Your task to perform on an android device: allow notifications from all sites in the chrome app Image 0: 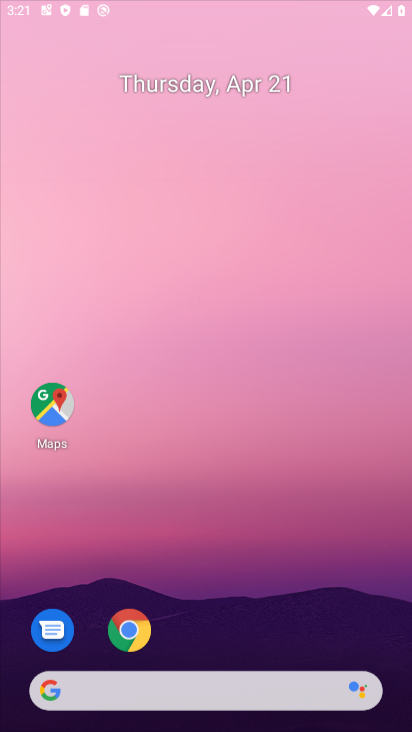
Step 0: click (230, 130)
Your task to perform on an android device: allow notifications from all sites in the chrome app Image 1: 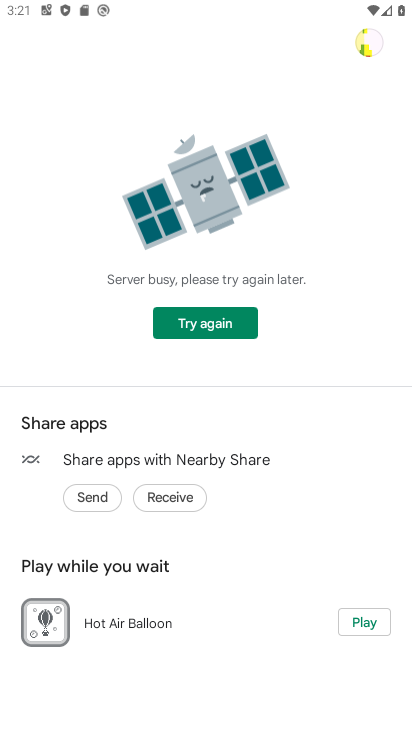
Step 1: press back button
Your task to perform on an android device: allow notifications from all sites in the chrome app Image 2: 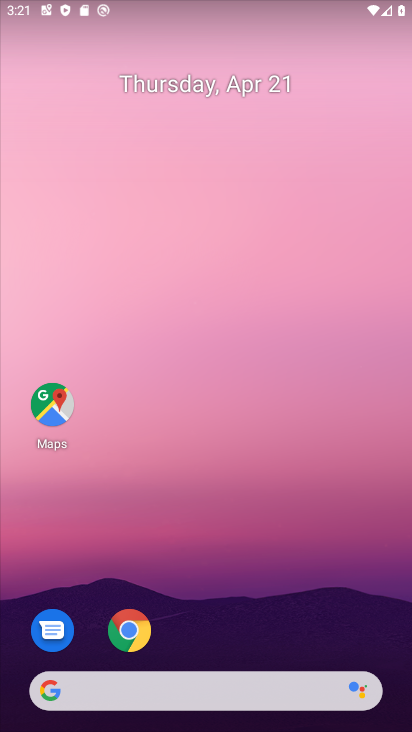
Step 2: click (134, 619)
Your task to perform on an android device: allow notifications from all sites in the chrome app Image 3: 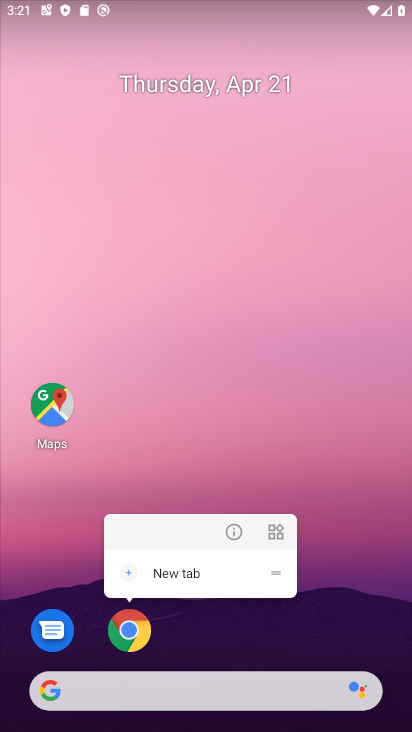
Step 3: click (134, 630)
Your task to perform on an android device: allow notifications from all sites in the chrome app Image 4: 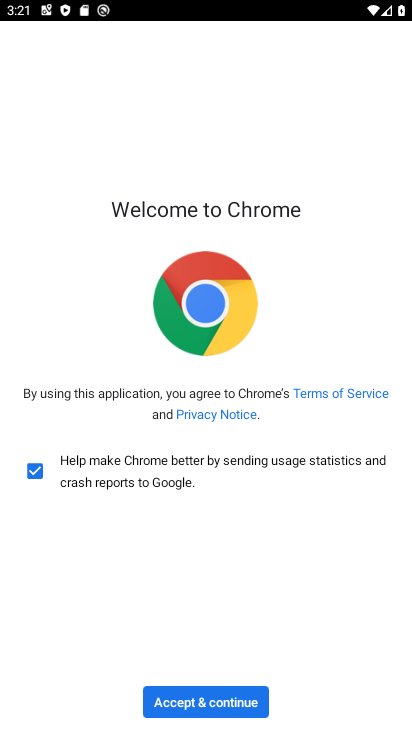
Step 4: click (179, 703)
Your task to perform on an android device: allow notifications from all sites in the chrome app Image 5: 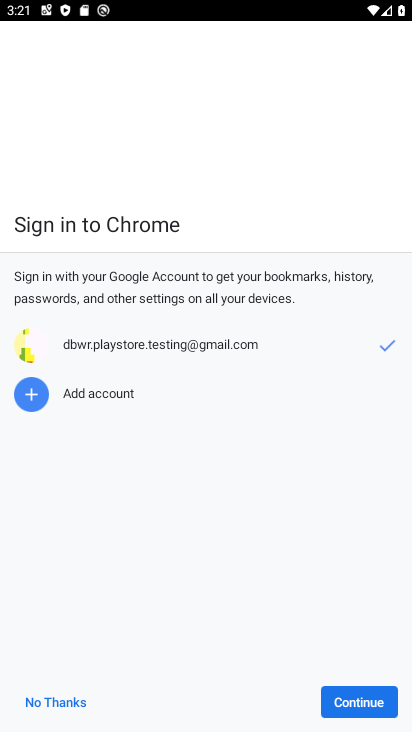
Step 5: click (350, 699)
Your task to perform on an android device: allow notifications from all sites in the chrome app Image 6: 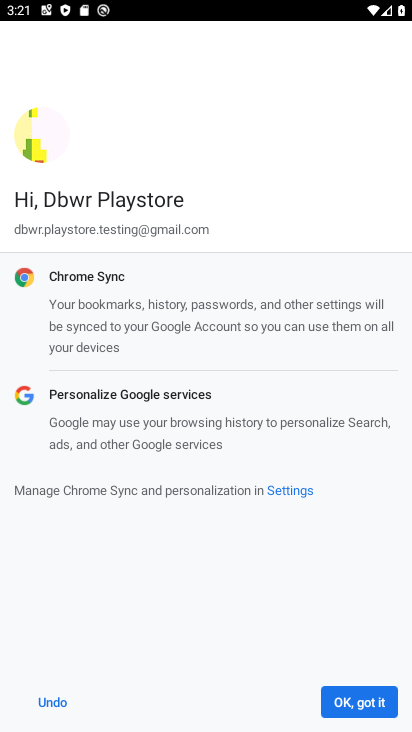
Step 6: click (346, 702)
Your task to perform on an android device: allow notifications from all sites in the chrome app Image 7: 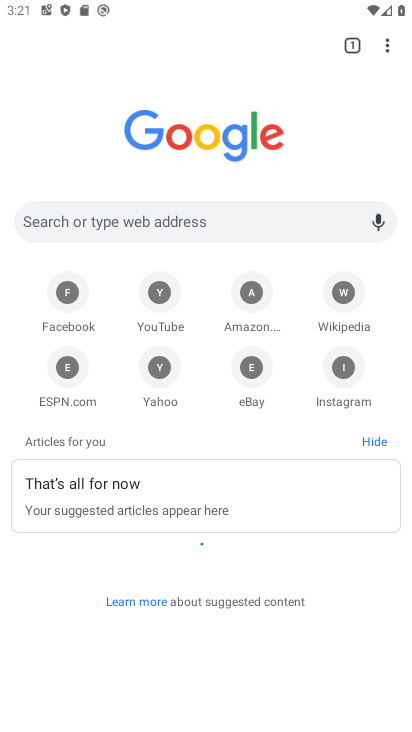
Step 7: drag from (385, 45) to (242, 384)
Your task to perform on an android device: allow notifications from all sites in the chrome app Image 8: 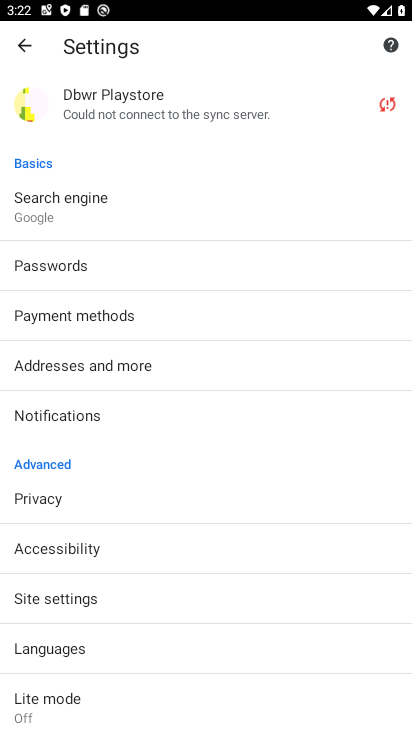
Step 8: click (60, 594)
Your task to perform on an android device: allow notifications from all sites in the chrome app Image 9: 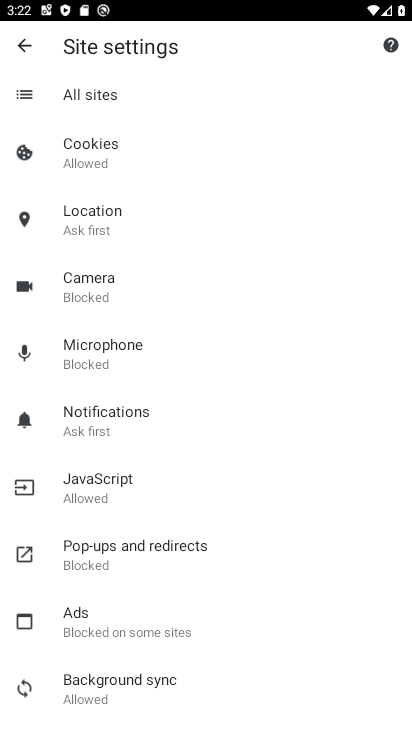
Step 9: click (113, 417)
Your task to perform on an android device: allow notifications from all sites in the chrome app Image 10: 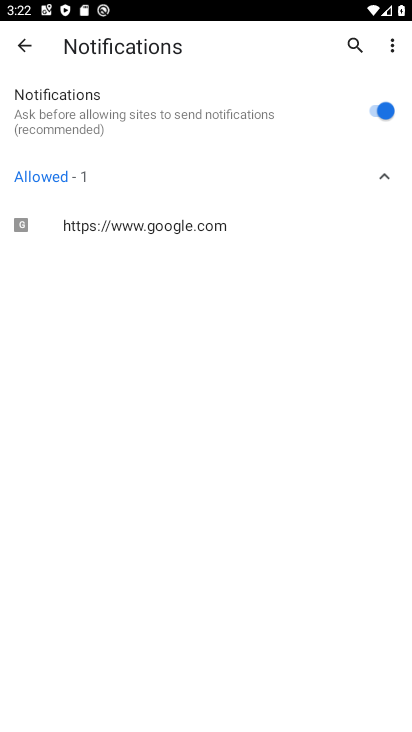
Step 10: task complete